Your task to perform on an android device: Open Wikipedia Image 0: 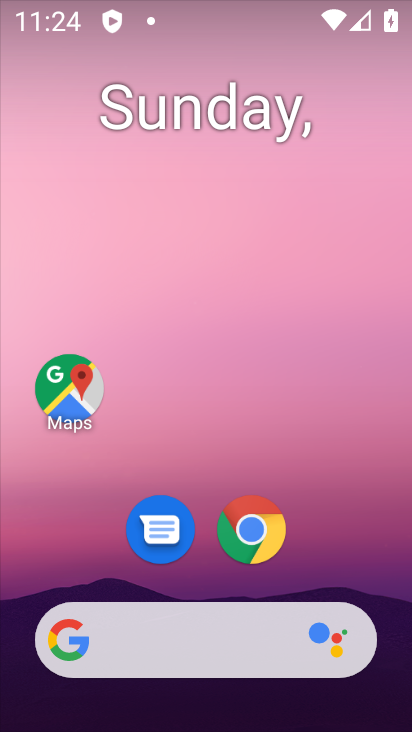
Step 0: click (251, 528)
Your task to perform on an android device: Open Wikipedia Image 1: 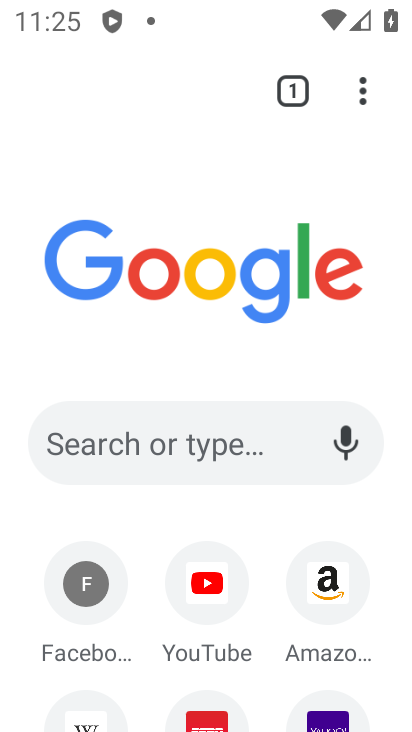
Step 1: drag from (252, 545) to (247, 269)
Your task to perform on an android device: Open Wikipedia Image 2: 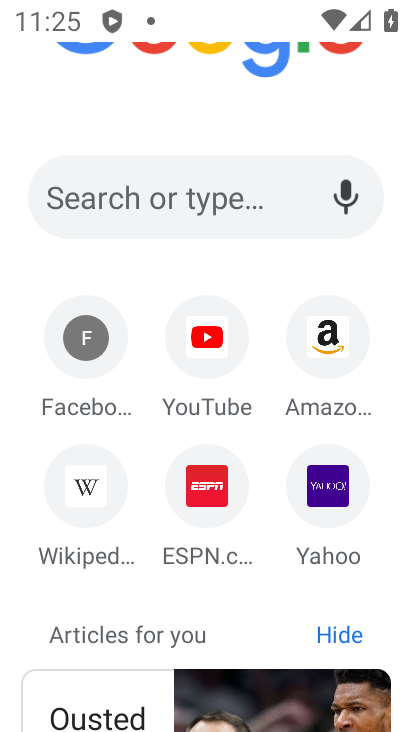
Step 2: click (90, 484)
Your task to perform on an android device: Open Wikipedia Image 3: 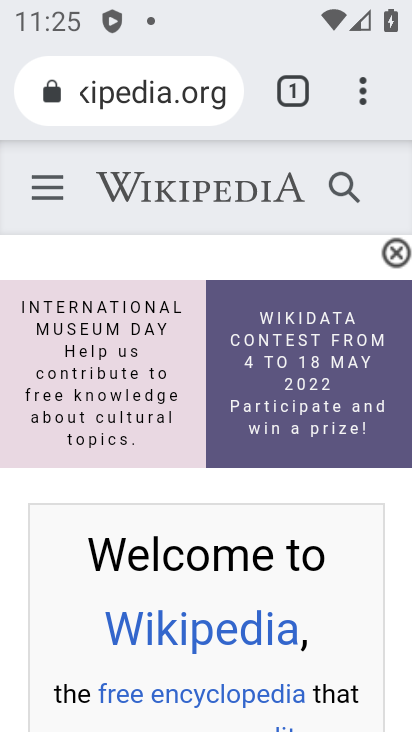
Step 3: task complete